Your task to perform on an android device: Open Yahoo.com Image 0: 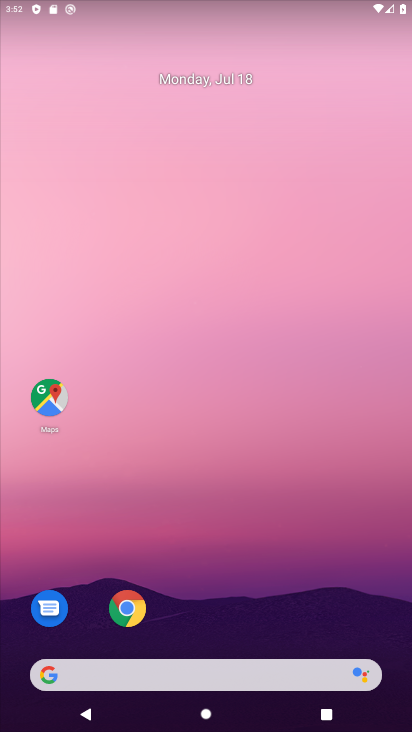
Step 0: click (130, 607)
Your task to perform on an android device: Open Yahoo.com Image 1: 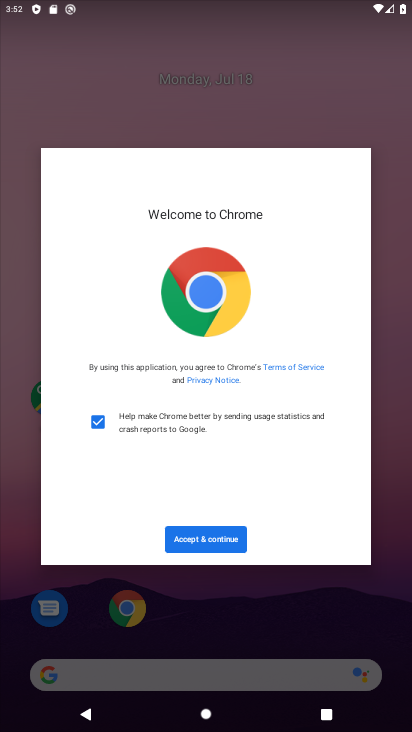
Step 1: click (213, 536)
Your task to perform on an android device: Open Yahoo.com Image 2: 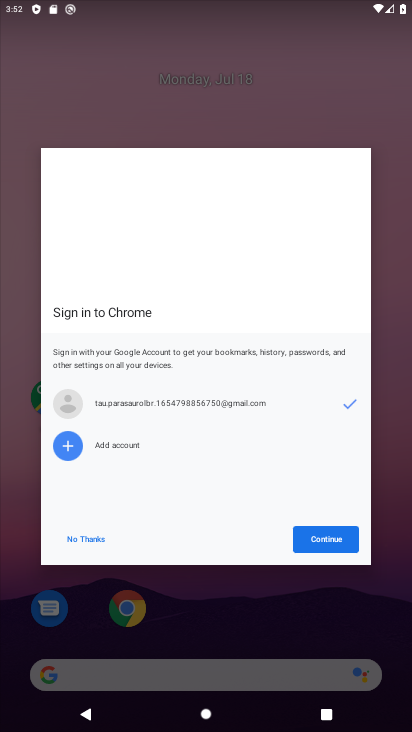
Step 2: click (320, 541)
Your task to perform on an android device: Open Yahoo.com Image 3: 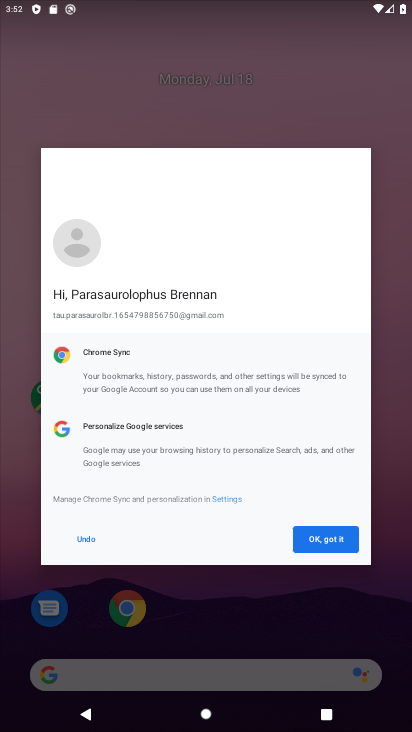
Step 3: click (320, 541)
Your task to perform on an android device: Open Yahoo.com Image 4: 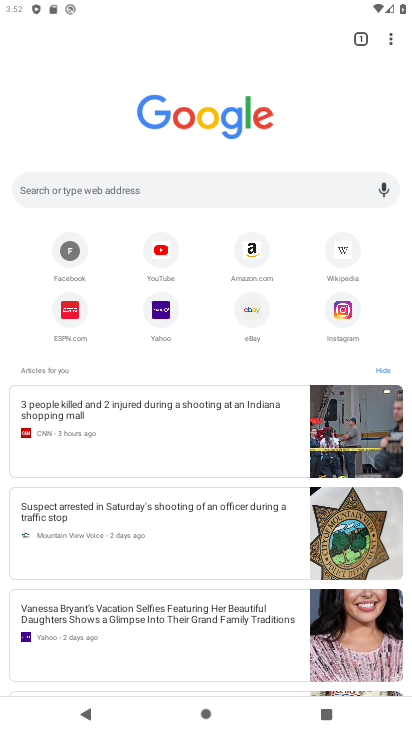
Step 4: click (168, 328)
Your task to perform on an android device: Open Yahoo.com Image 5: 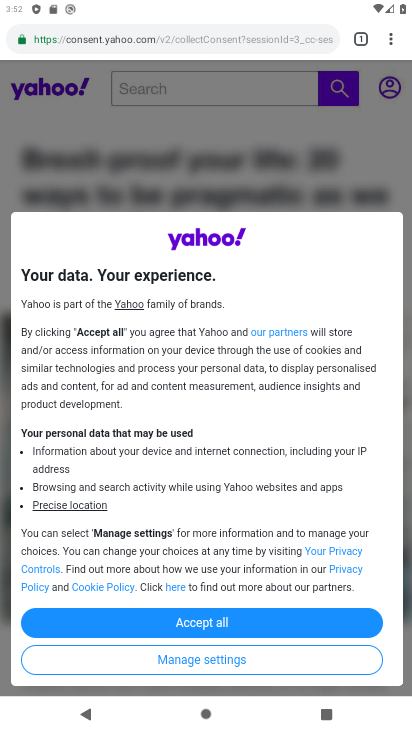
Step 5: task complete